Your task to perform on an android device: turn vacation reply on in the gmail app Image 0: 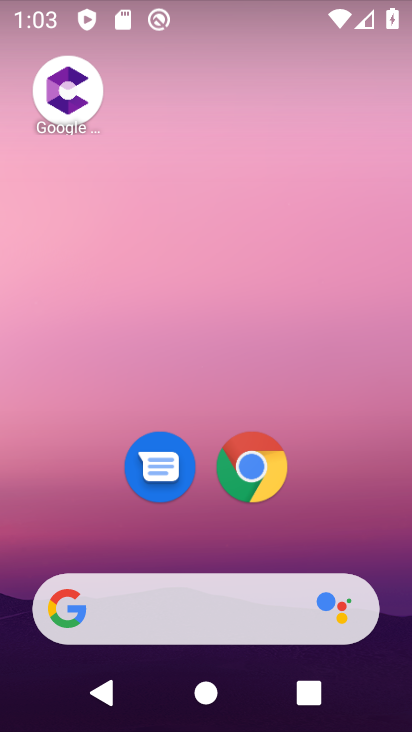
Step 0: drag from (381, 540) to (373, 137)
Your task to perform on an android device: turn vacation reply on in the gmail app Image 1: 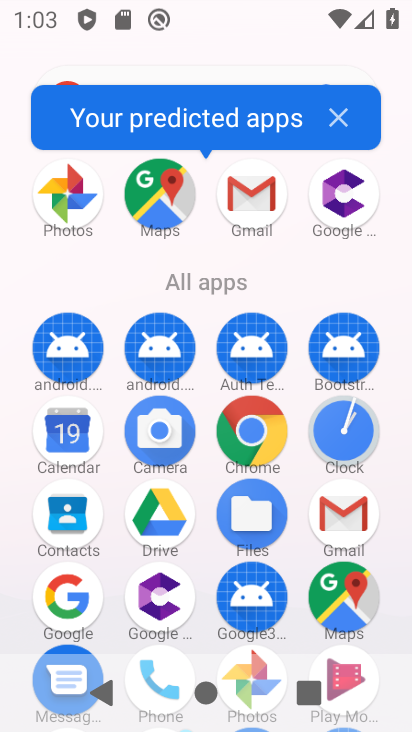
Step 1: click (344, 515)
Your task to perform on an android device: turn vacation reply on in the gmail app Image 2: 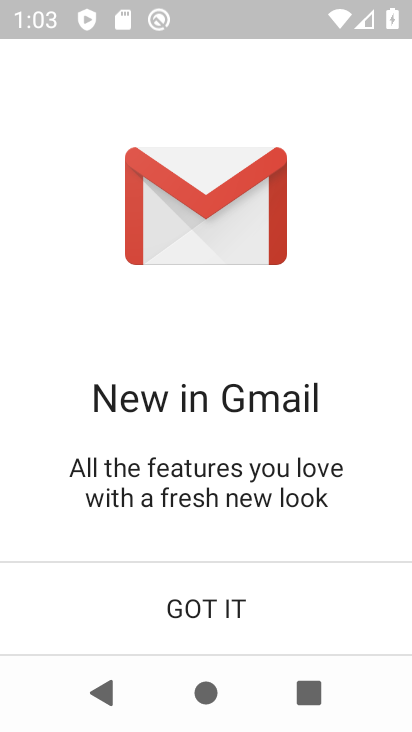
Step 2: click (241, 606)
Your task to perform on an android device: turn vacation reply on in the gmail app Image 3: 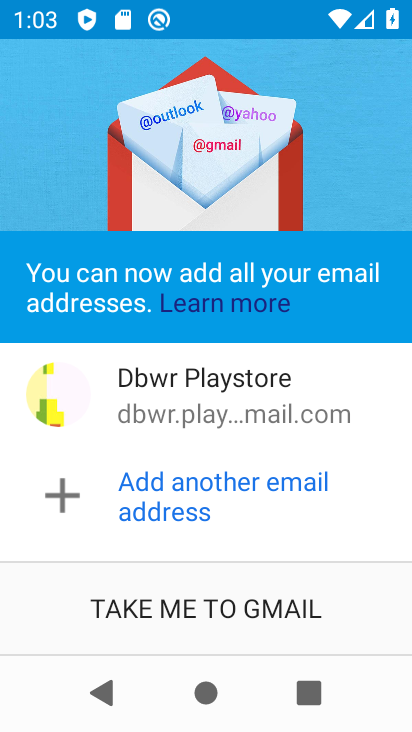
Step 3: click (229, 607)
Your task to perform on an android device: turn vacation reply on in the gmail app Image 4: 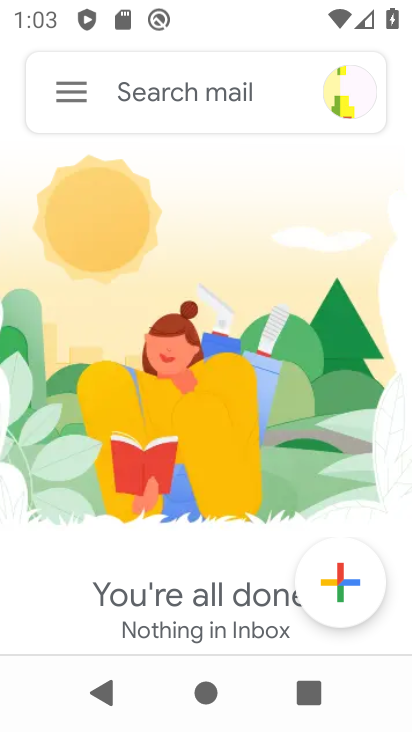
Step 4: click (74, 83)
Your task to perform on an android device: turn vacation reply on in the gmail app Image 5: 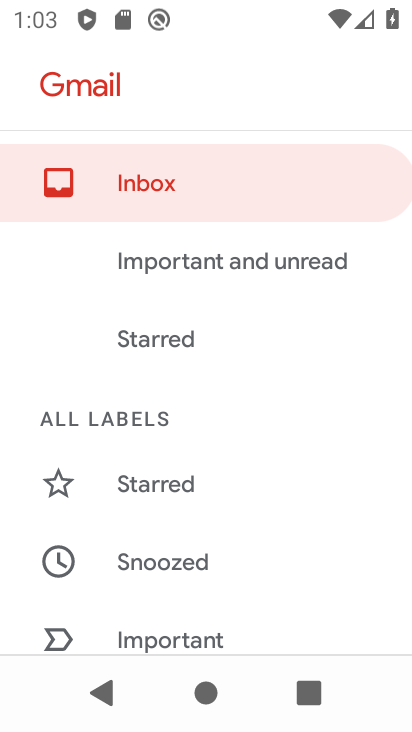
Step 5: drag from (349, 503) to (348, 338)
Your task to perform on an android device: turn vacation reply on in the gmail app Image 6: 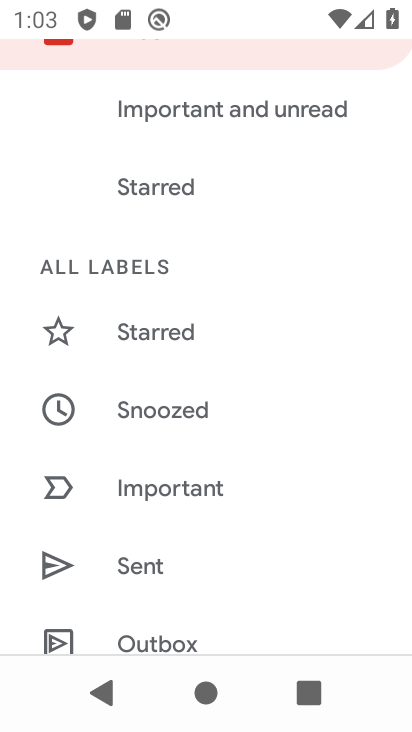
Step 6: drag from (365, 545) to (369, 371)
Your task to perform on an android device: turn vacation reply on in the gmail app Image 7: 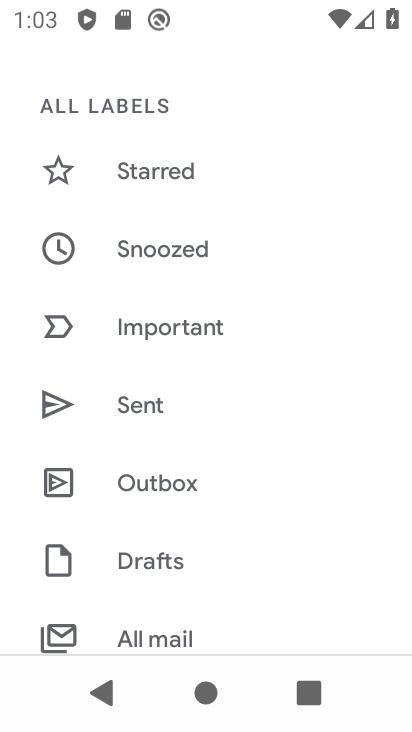
Step 7: drag from (364, 576) to (355, 408)
Your task to perform on an android device: turn vacation reply on in the gmail app Image 8: 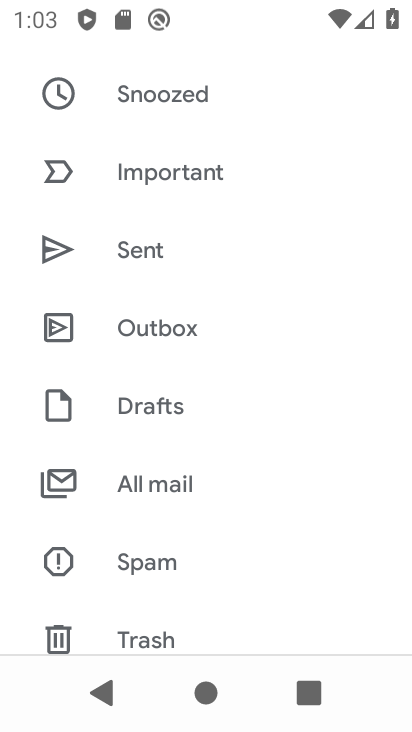
Step 8: drag from (343, 549) to (339, 436)
Your task to perform on an android device: turn vacation reply on in the gmail app Image 9: 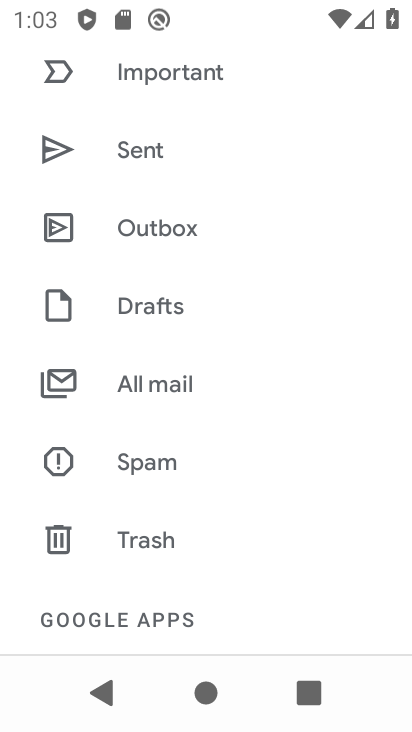
Step 9: drag from (339, 552) to (345, 383)
Your task to perform on an android device: turn vacation reply on in the gmail app Image 10: 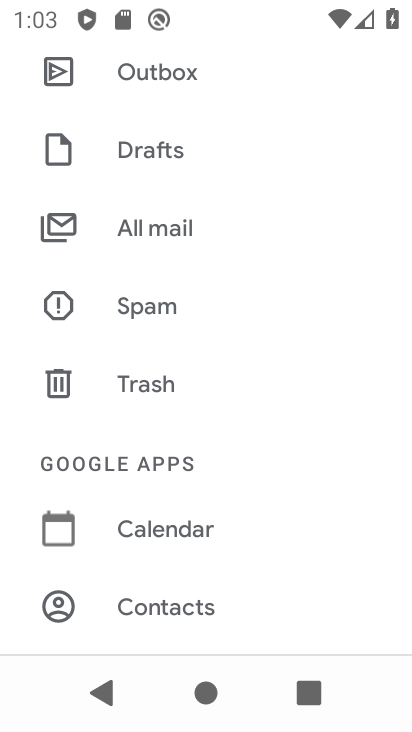
Step 10: drag from (345, 575) to (348, 381)
Your task to perform on an android device: turn vacation reply on in the gmail app Image 11: 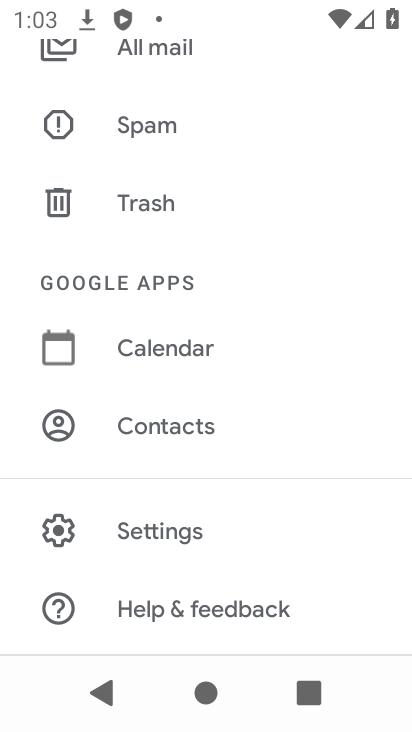
Step 11: click (207, 532)
Your task to perform on an android device: turn vacation reply on in the gmail app Image 12: 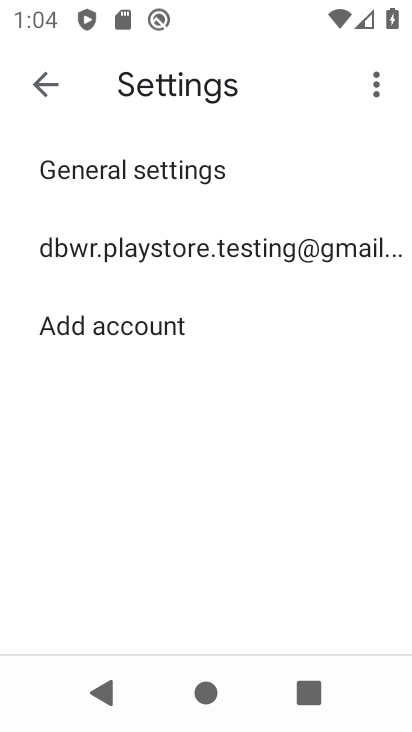
Step 12: click (239, 249)
Your task to perform on an android device: turn vacation reply on in the gmail app Image 13: 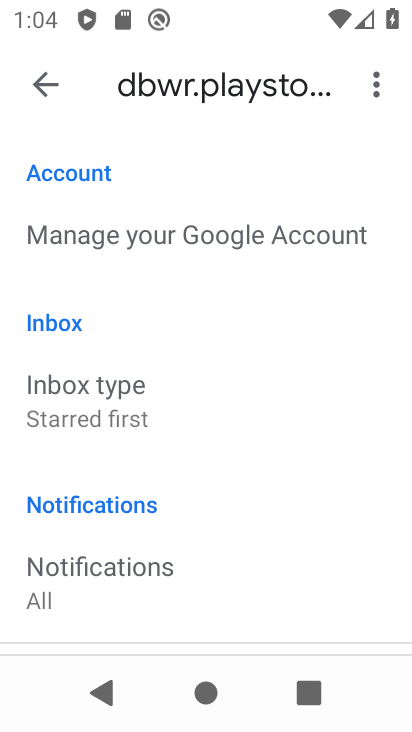
Step 13: drag from (268, 518) to (276, 297)
Your task to perform on an android device: turn vacation reply on in the gmail app Image 14: 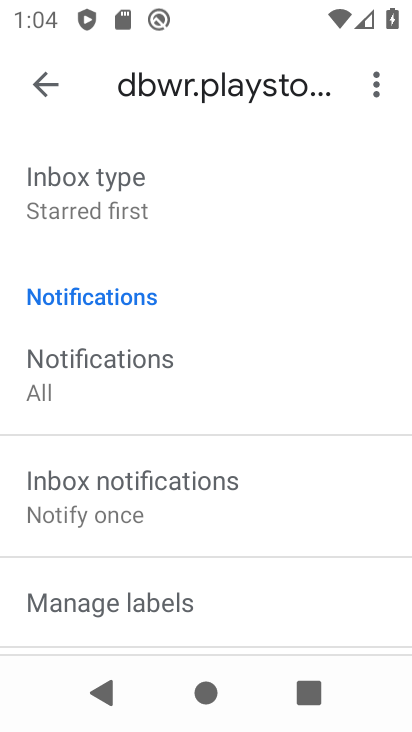
Step 14: drag from (284, 546) to (278, 337)
Your task to perform on an android device: turn vacation reply on in the gmail app Image 15: 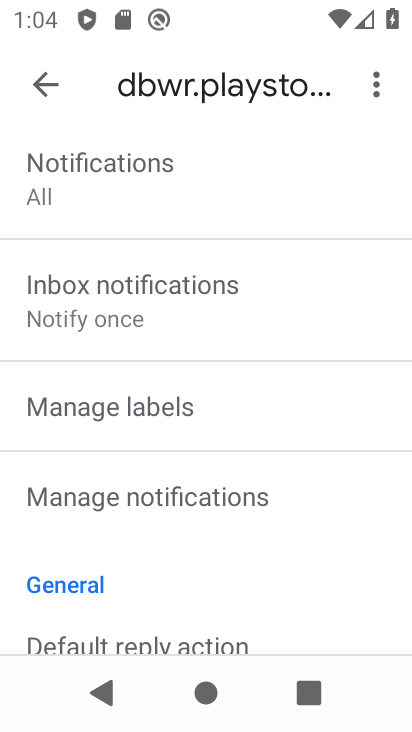
Step 15: drag from (306, 548) to (314, 368)
Your task to perform on an android device: turn vacation reply on in the gmail app Image 16: 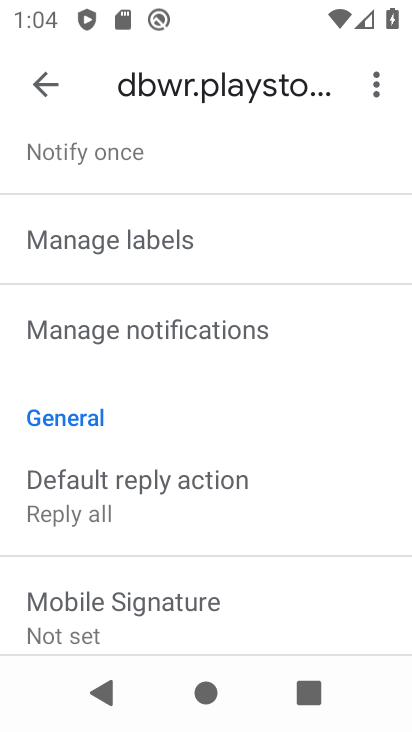
Step 16: drag from (318, 552) to (320, 338)
Your task to perform on an android device: turn vacation reply on in the gmail app Image 17: 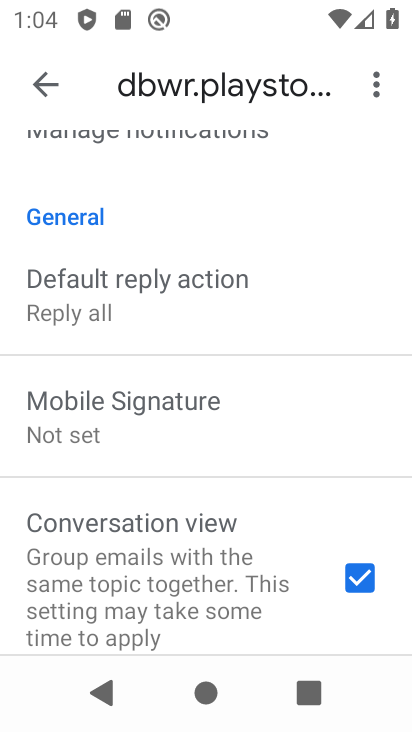
Step 17: drag from (276, 486) to (275, 265)
Your task to perform on an android device: turn vacation reply on in the gmail app Image 18: 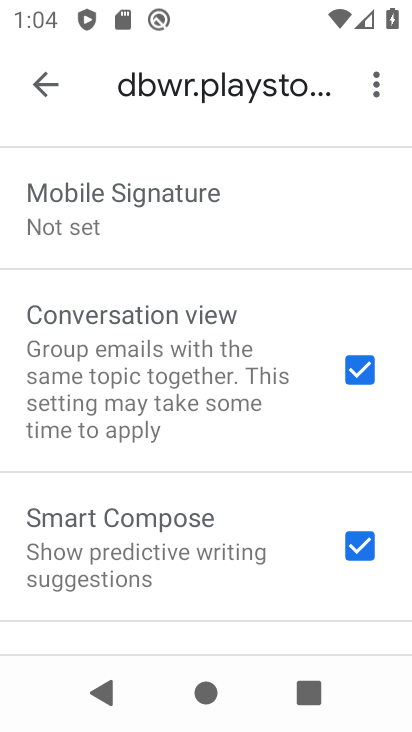
Step 18: drag from (279, 576) to (284, 282)
Your task to perform on an android device: turn vacation reply on in the gmail app Image 19: 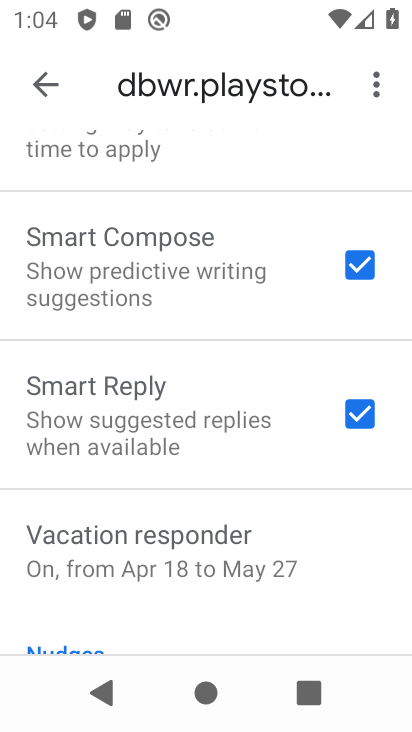
Step 19: click (198, 561)
Your task to perform on an android device: turn vacation reply on in the gmail app Image 20: 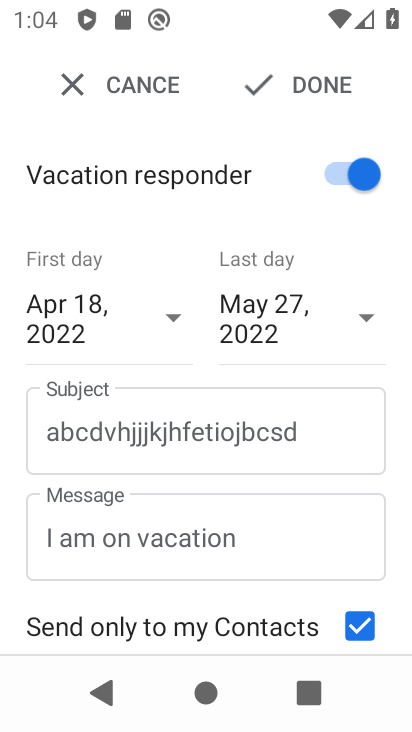
Step 20: task complete